Your task to perform on an android device: turn on priority inbox in the gmail app Image 0: 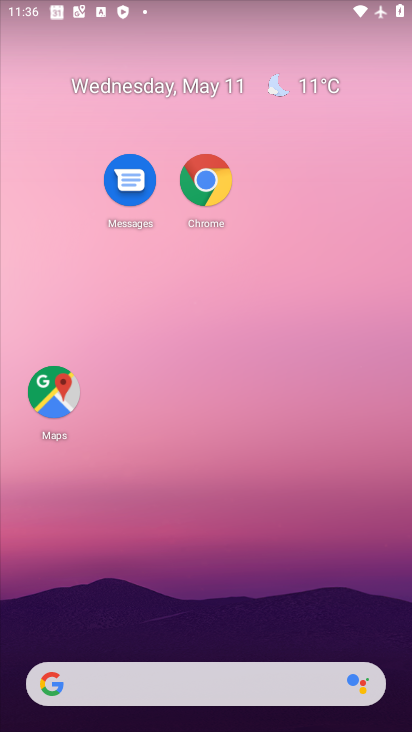
Step 0: drag from (272, 566) to (266, 50)
Your task to perform on an android device: turn on priority inbox in the gmail app Image 1: 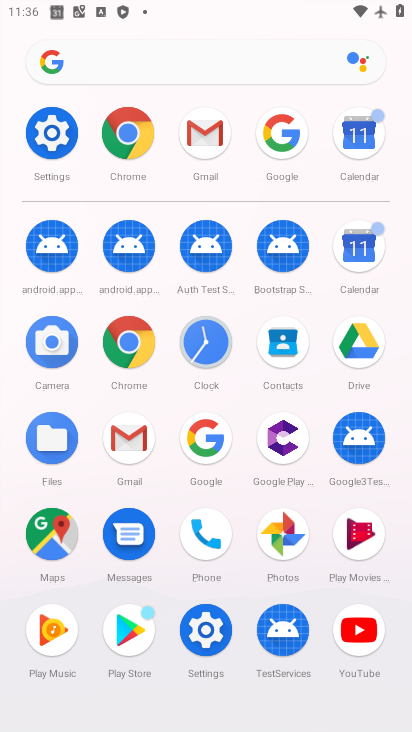
Step 1: click (148, 443)
Your task to perform on an android device: turn on priority inbox in the gmail app Image 2: 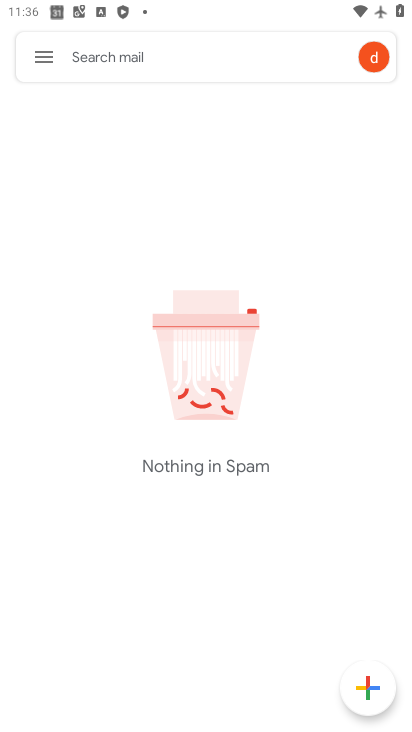
Step 2: click (40, 60)
Your task to perform on an android device: turn on priority inbox in the gmail app Image 3: 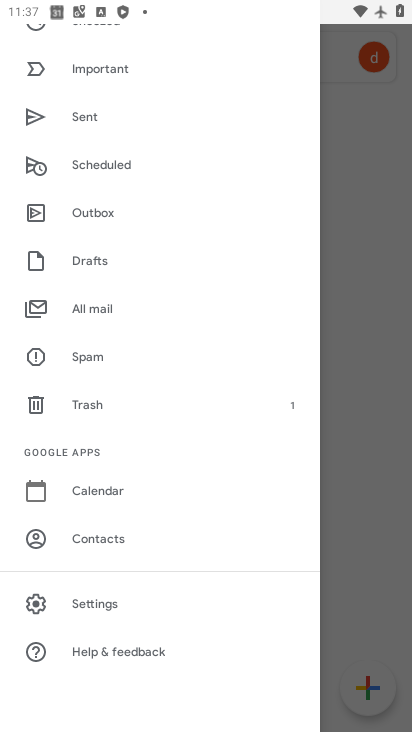
Step 3: click (114, 608)
Your task to perform on an android device: turn on priority inbox in the gmail app Image 4: 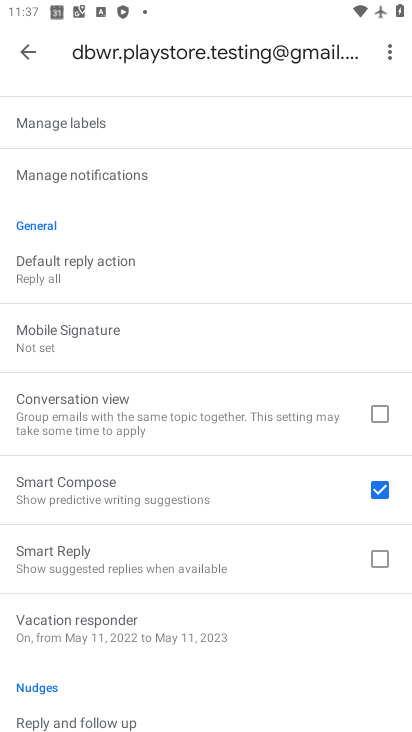
Step 4: drag from (143, 655) to (154, 709)
Your task to perform on an android device: turn on priority inbox in the gmail app Image 5: 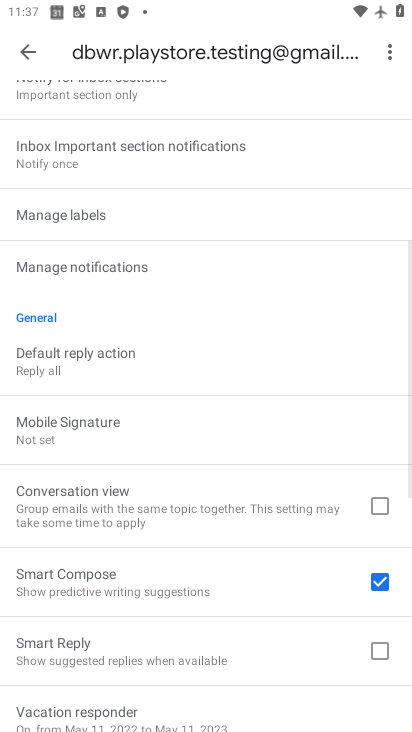
Step 5: drag from (179, 277) to (164, 650)
Your task to perform on an android device: turn on priority inbox in the gmail app Image 6: 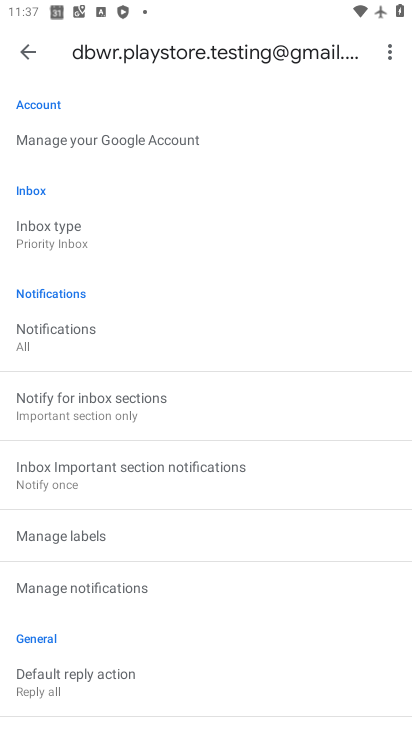
Step 6: click (121, 221)
Your task to perform on an android device: turn on priority inbox in the gmail app Image 7: 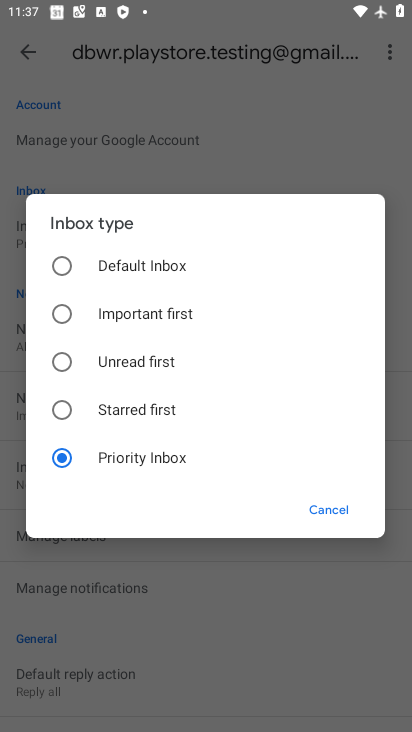
Step 7: task complete